Your task to perform on an android device: Open Youtube and go to the subscriptions tab Image 0: 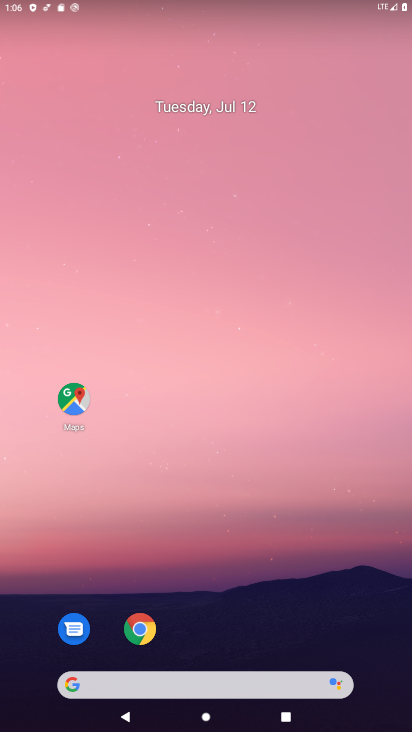
Step 0: drag from (272, 683) to (212, 17)
Your task to perform on an android device: Open Youtube and go to the subscriptions tab Image 1: 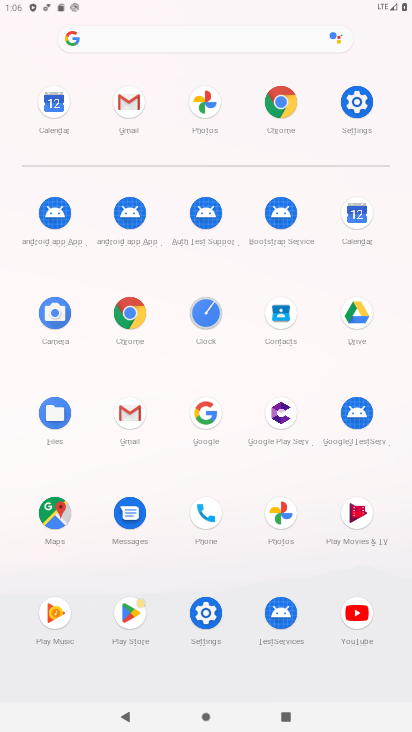
Step 1: click (366, 614)
Your task to perform on an android device: Open Youtube and go to the subscriptions tab Image 2: 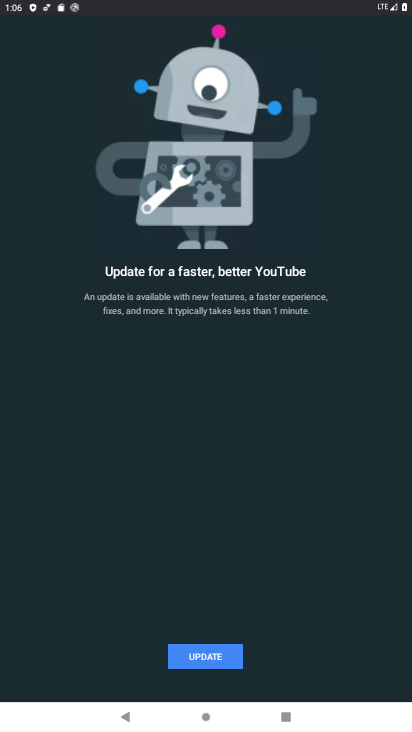
Step 2: click (236, 664)
Your task to perform on an android device: Open Youtube and go to the subscriptions tab Image 3: 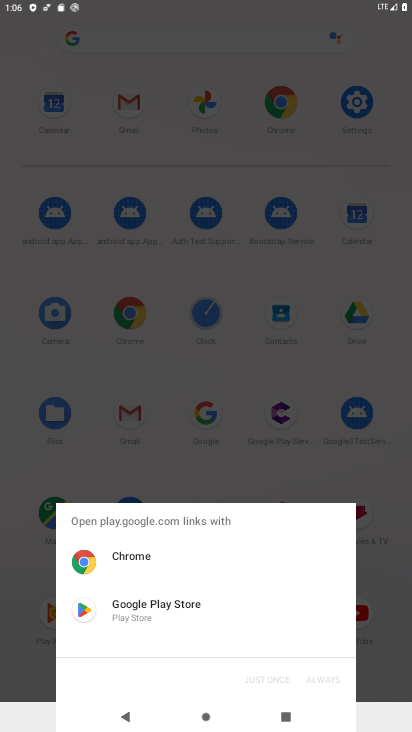
Step 3: click (181, 616)
Your task to perform on an android device: Open Youtube and go to the subscriptions tab Image 4: 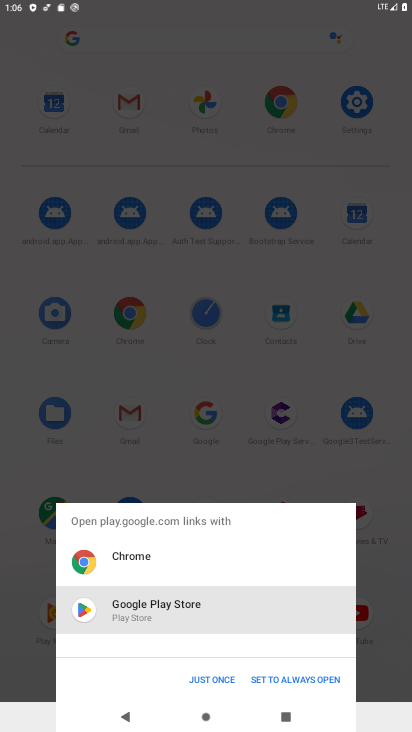
Step 4: click (201, 681)
Your task to perform on an android device: Open Youtube and go to the subscriptions tab Image 5: 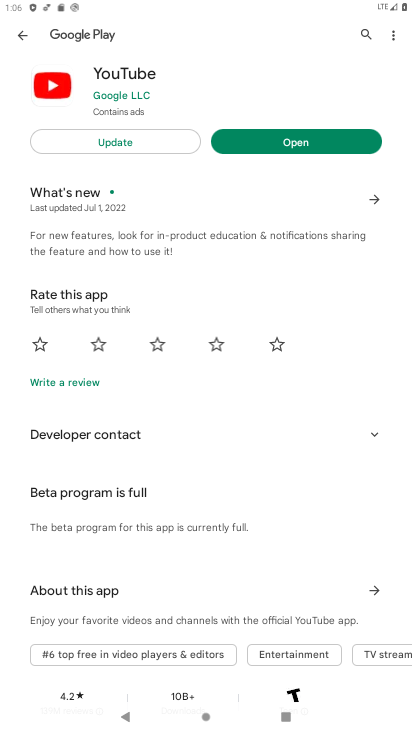
Step 5: click (144, 147)
Your task to perform on an android device: Open Youtube and go to the subscriptions tab Image 6: 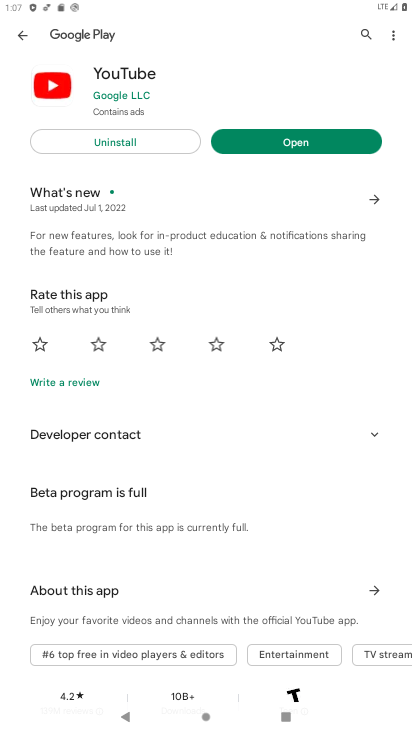
Step 6: click (260, 143)
Your task to perform on an android device: Open Youtube and go to the subscriptions tab Image 7: 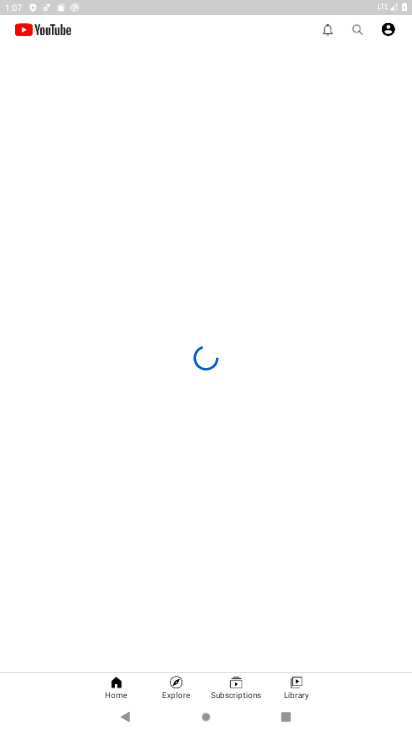
Step 7: click (245, 685)
Your task to perform on an android device: Open Youtube and go to the subscriptions tab Image 8: 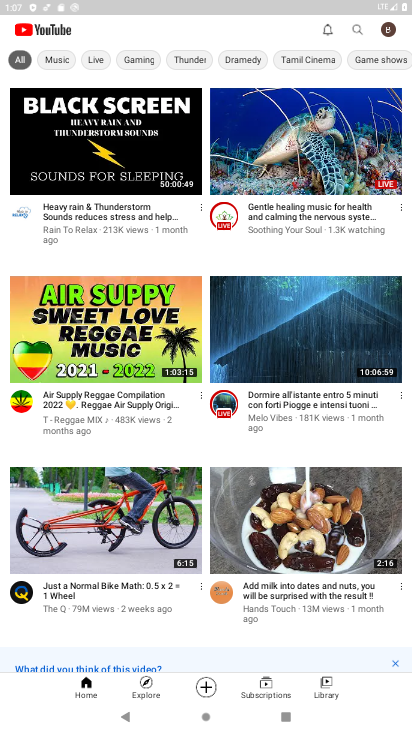
Step 8: task complete